Your task to perform on an android device: Open battery settings Image 0: 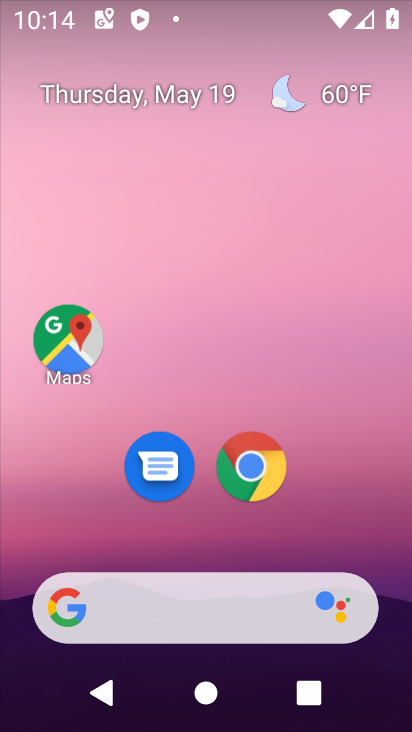
Step 0: drag from (345, 498) to (261, 139)
Your task to perform on an android device: Open battery settings Image 1: 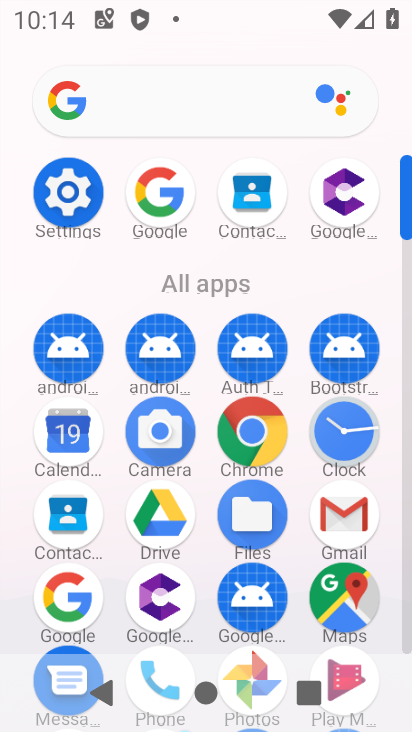
Step 1: click (61, 189)
Your task to perform on an android device: Open battery settings Image 2: 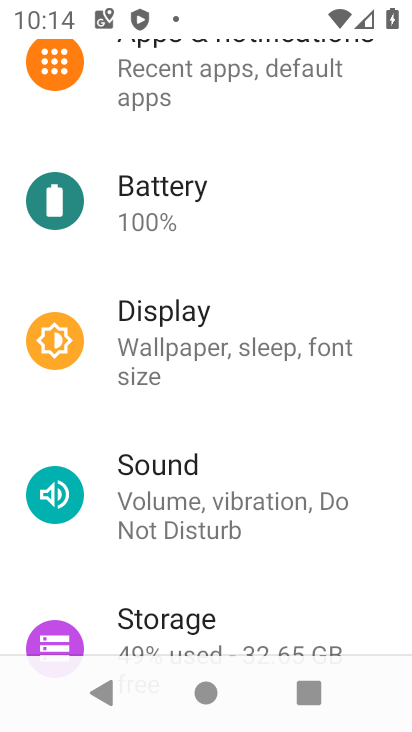
Step 2: click (179, 222)
Your task to perform on an android device: Open battery settings Image 3: 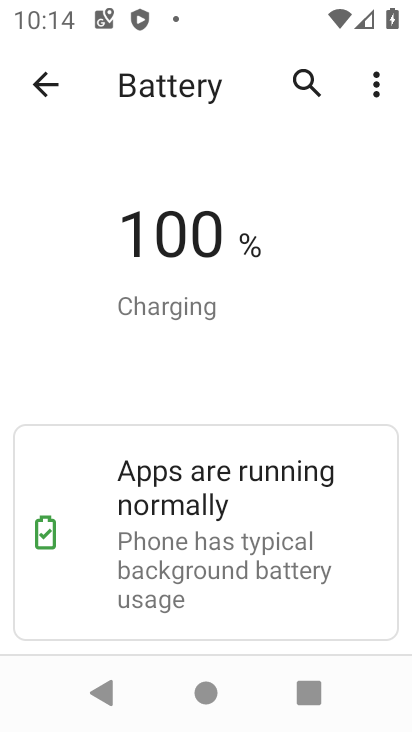
Step 3: task complete